Your task to perform on an android device: turn on airplane mode Image 0: 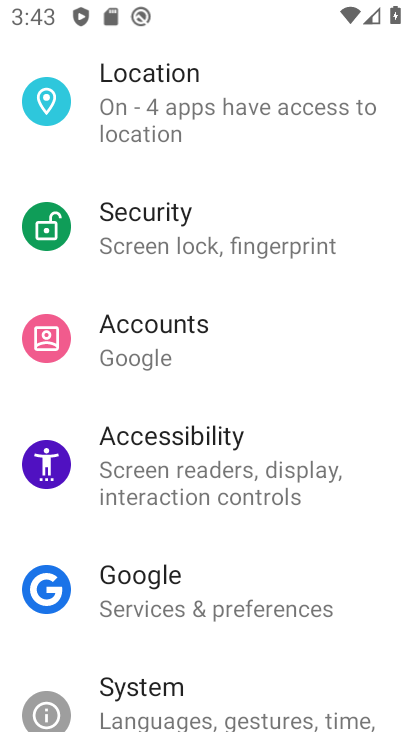
Step 0: drag from (305, 163) to (248, 660)
Your task to perform on an android device: turn on airplane mode Image 1: 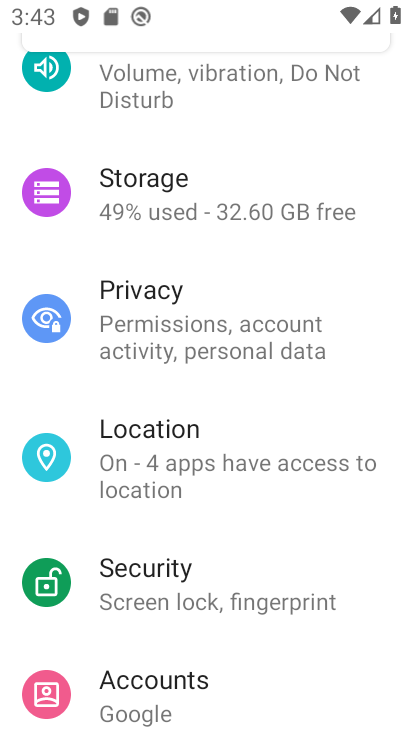
Step 1: drag from (198, 243) to (211, 709)
Your task to perform on an android device: turn on airplane mode Image 2: 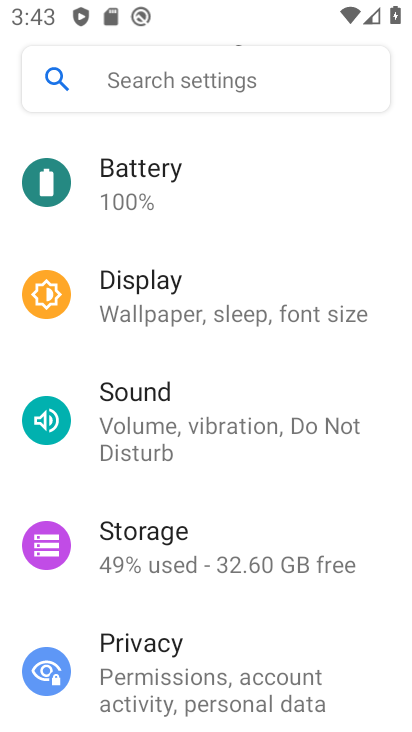
Step 2: drag from (247, 236) to (302, 708)
Your task to perform on an android device: turn on airplane mode Image 3: 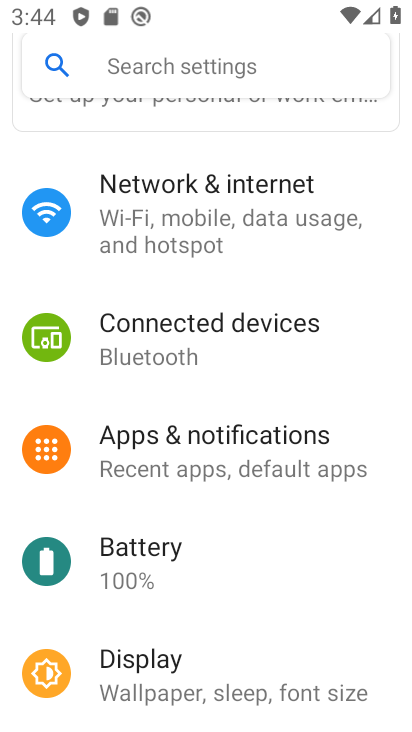
Step 3: click (257, 246)
Your task to perform on an android device: turn on airplane mode Image 4: 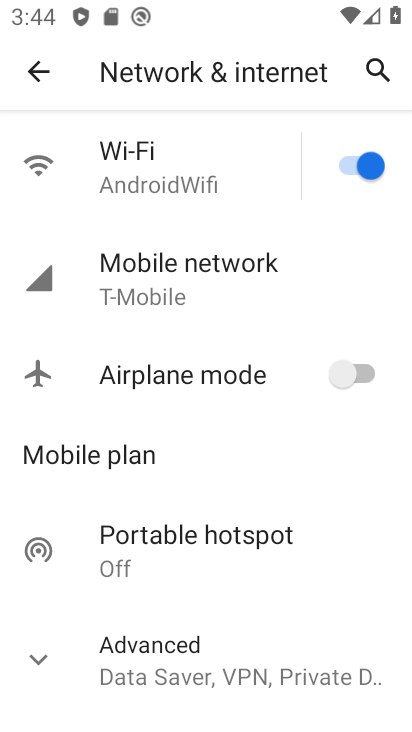
Step 4: click (337, 378)
Your task to perform on an android device: turn on airplane mode Image 5: 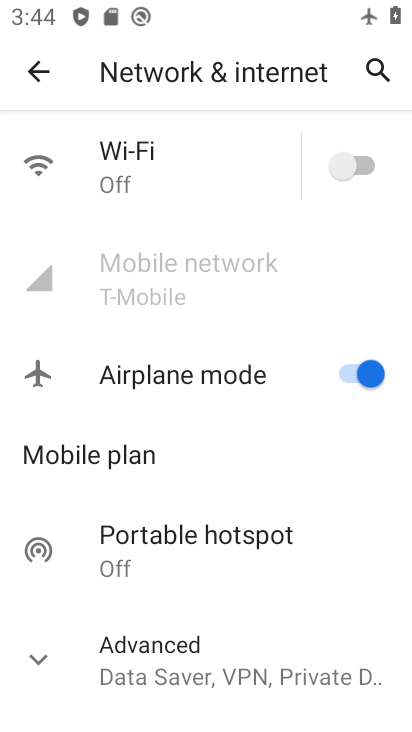
Step 5: task complete